Your task to perform on an android device: show emergency info Image 0: 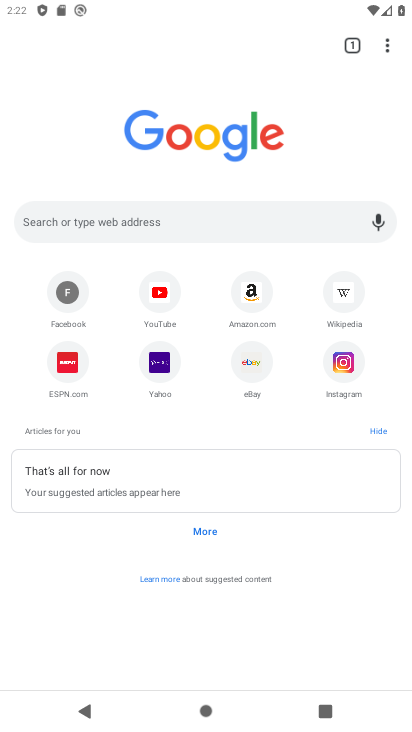
Step 0: click (186, 1)
Your task to perform on an android device: show emergency info Image 1: 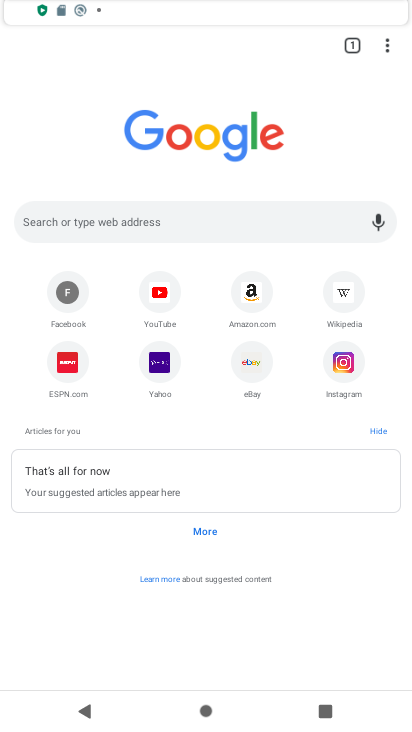
Step 1: press home button
Your task to perform on an android device: show emergency info Image 2: 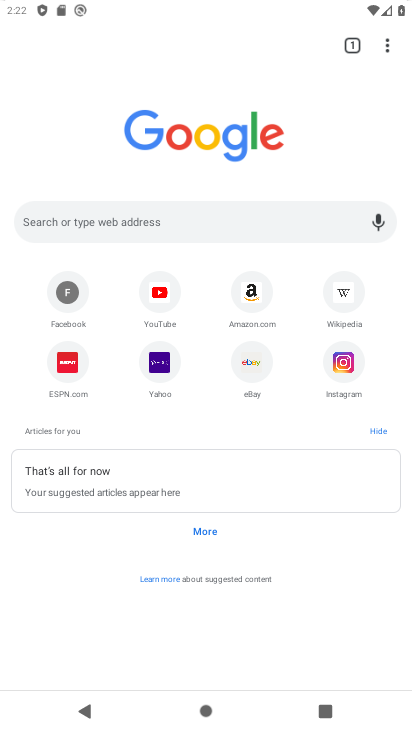
Step 2: drag from (186, 1) to (364, 593)
Your task to perform on an android device: show emergency info Image 3: 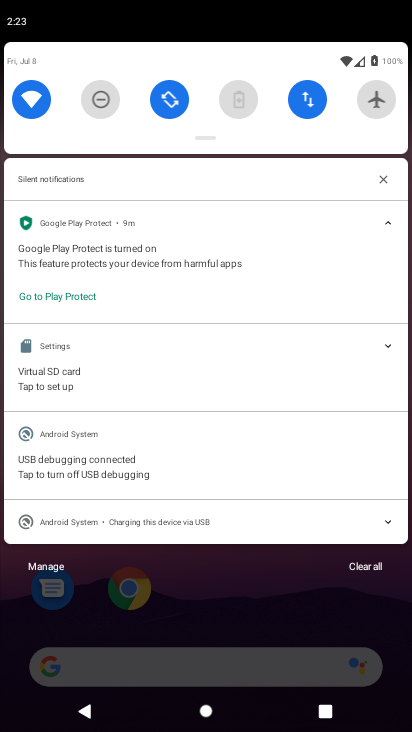
Step 3: drag from (206, 629) to (208, 124)
Your task to perform on an android device: show emergency info Image 4: 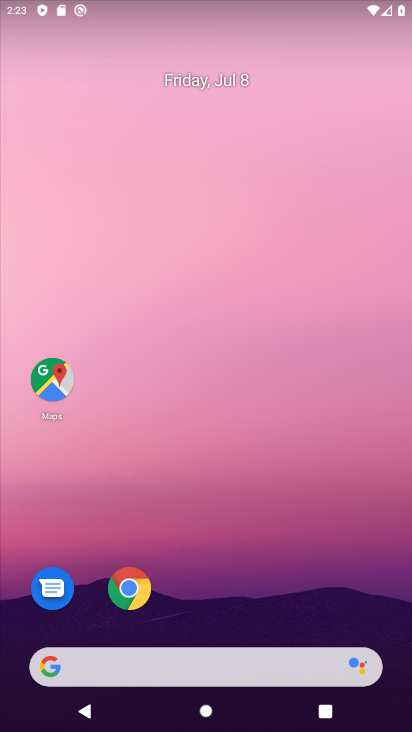
Step 4: click (227, 120)
Your task to perform on an android device: show emergency info Image 5: 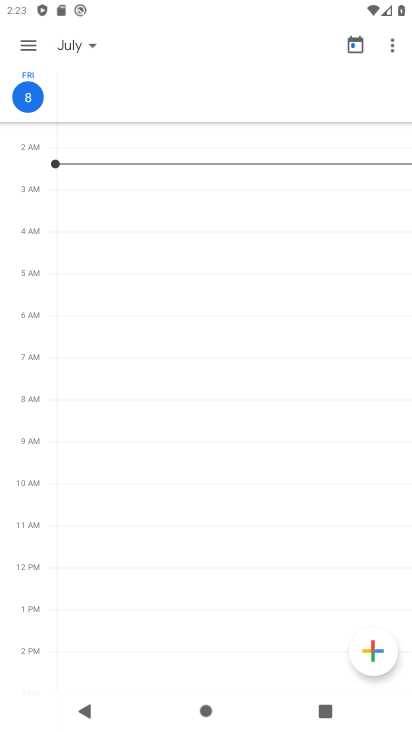
Step 5: press home button
Your task to perform on an android device: show emergency info Image 6: 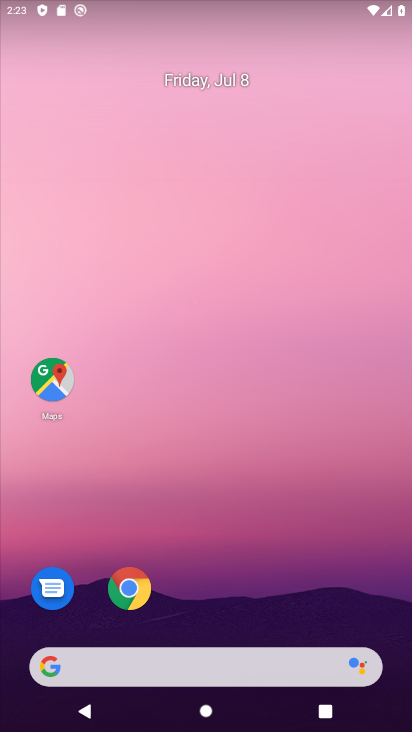
Step 6: click (206, 147)
Your task to perform on an android device: show emergency info Image 7: 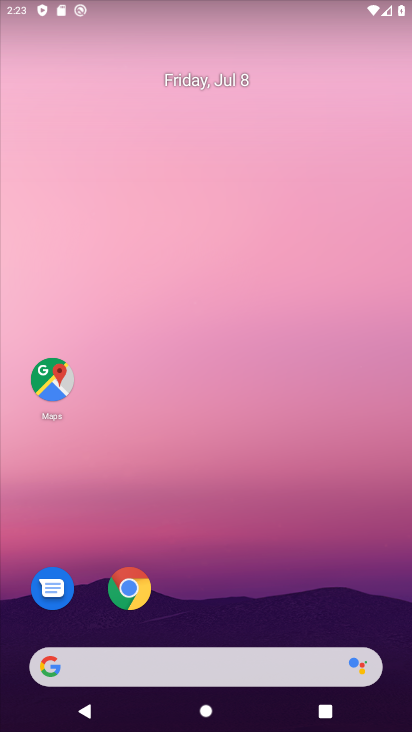
Step 7: drag from (223, 364) to (213, 20)
Your task to perform on an android device: show emergency info Image 8: 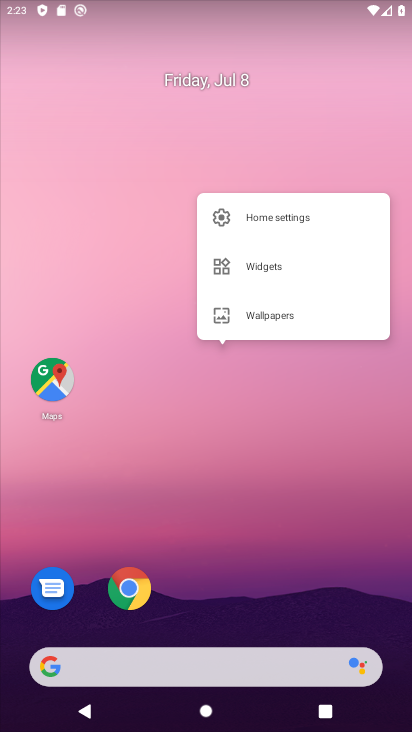
Step 8: drag from (199, 495) to (202, 350)
Your task to perform on an android device: show emergency info Image 9: 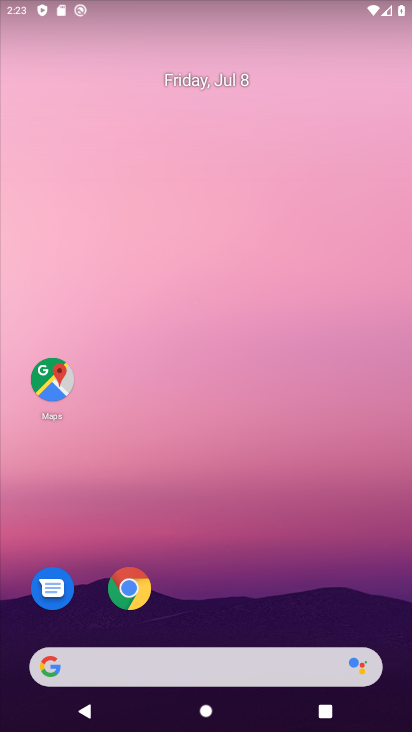
Step 9: drag from (196, 526) to (180, 132)
Your task to perform on an android device: show emergency info Image 10: 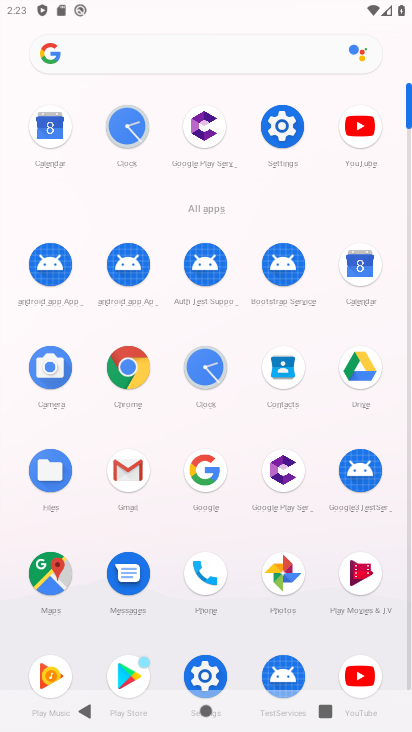
Step 10: click (284, 128)
Your task to perform on an android device: show emergency info Image 11: 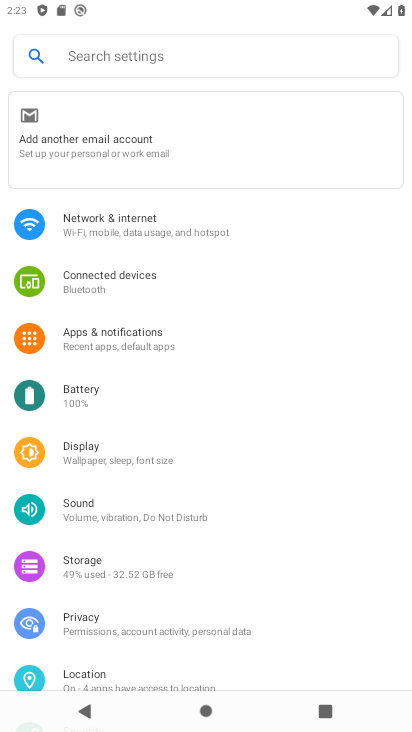
Step 11: drag from (174, 576) to (178, 476)
Your task to perform on an android device: show emergency info Image 12: 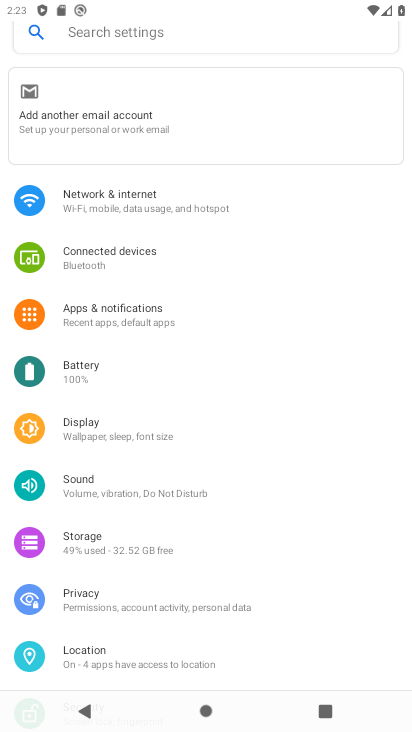
Step 12: drag from (131, 423) to (127, 366)
Your task to perform on an android device: show emergency info Image 13: 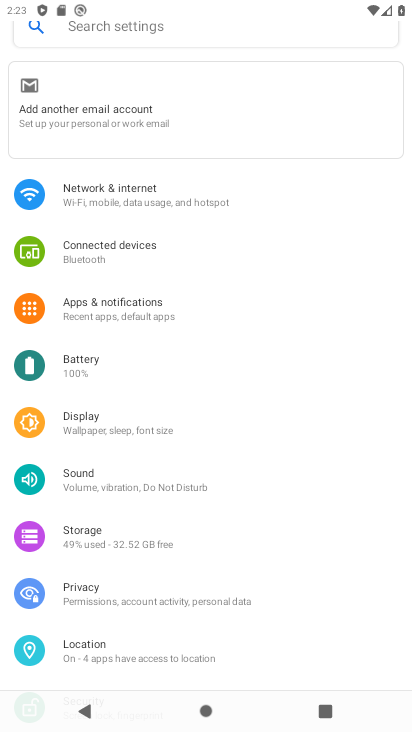
Step 13: drag from (137, 413) to (147, 615)
Your task to perform on an android device: show emergency info Image 14: 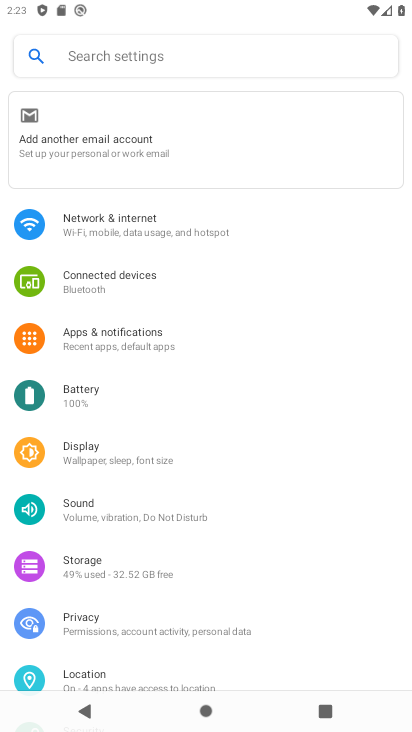
Step 14: drag from (131, 575) to (113, 192)
Your task to perform on an android device: show emergency info Image 15: 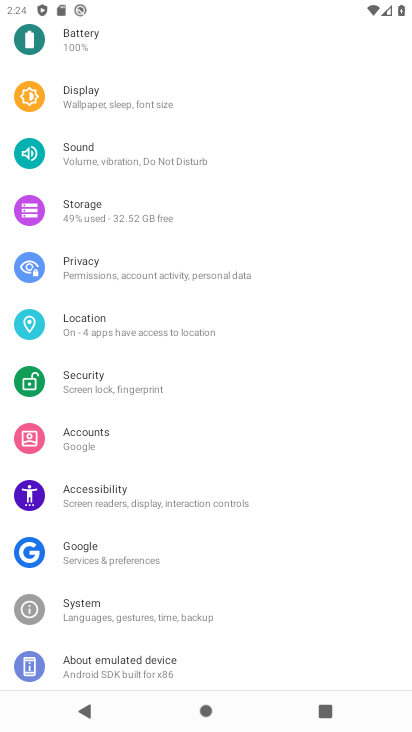
Step 15: click (106, 677)
Your task to perform on an android device: show emergency info Image 16: 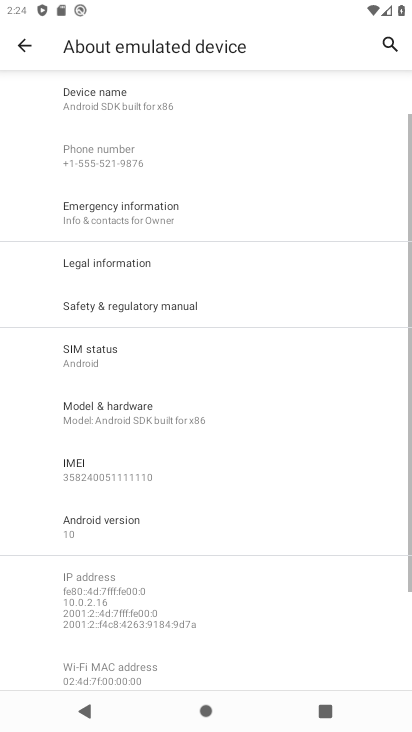
Step 16: click (183, 210)
Your task to perform on an android device: show emergency info Image 17: 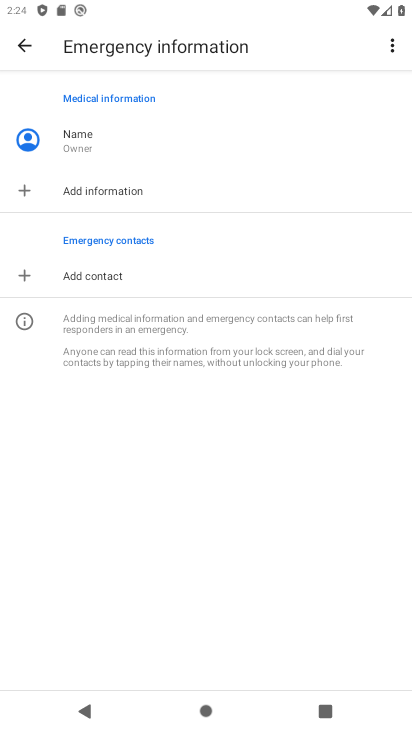
Step 17: task complete